Your task to perform on an android device: turn notification dots on Image 0: 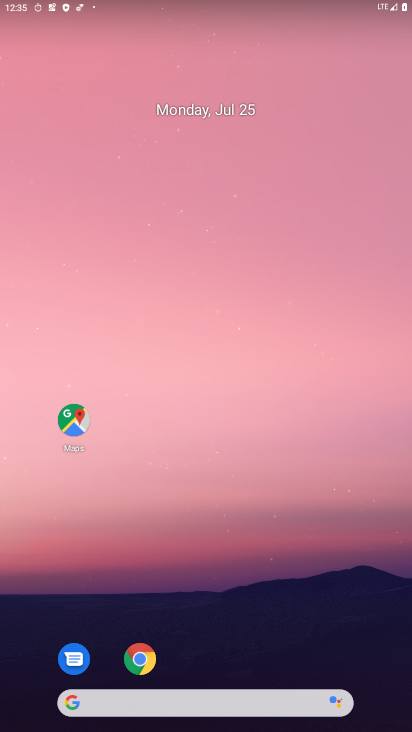
Step 0: click (248, 263)
Your task to perform on an android device: turn notification dots on Image 1: 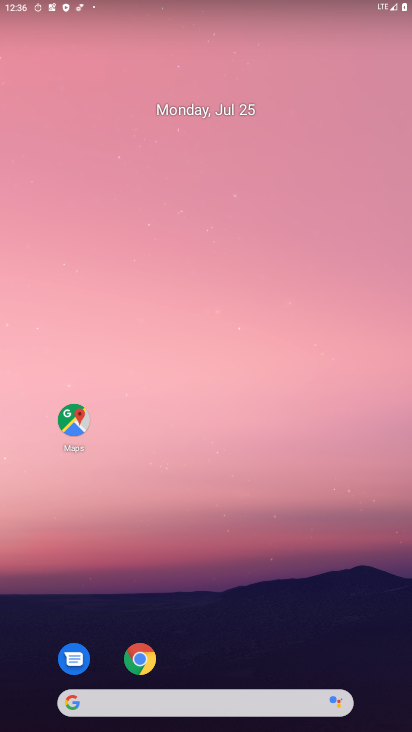
Step 1: drag from (21, 700) to (267, 64)
Your task to perform on an android device: turn notification dots on Image 2: 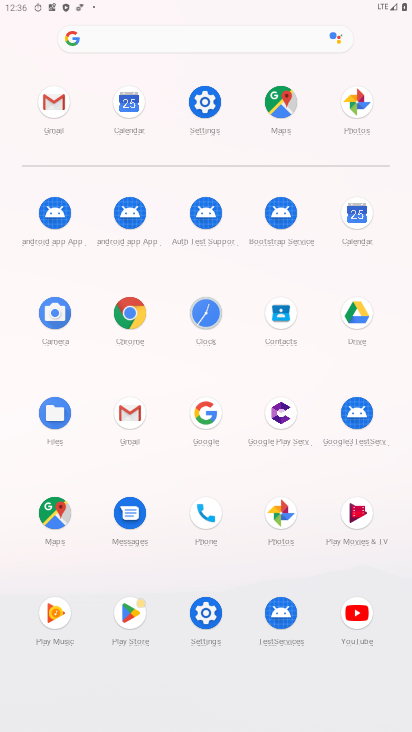
Step 2: click (205, 615)
Your task to perform on an android device: turn notification dots on Image 3: 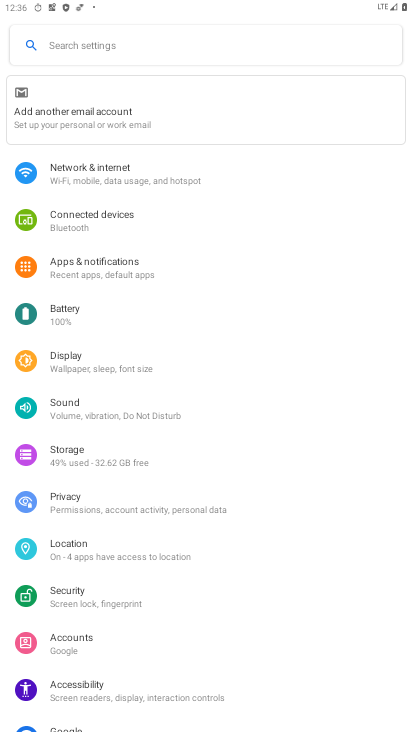
Step 3: click (87, 252)
Your task to perform on an android device: turn notification dots on Image 4: 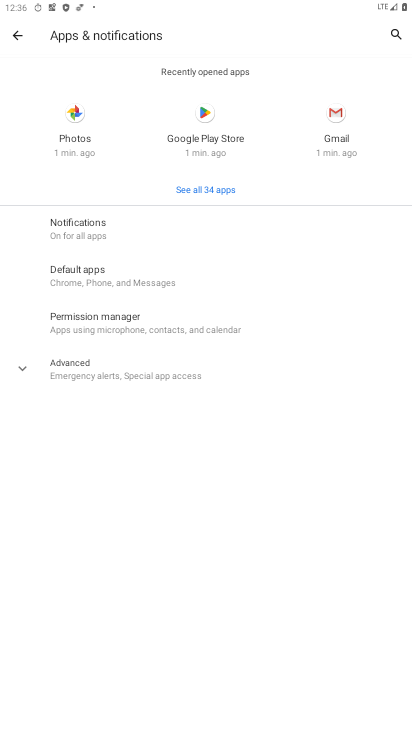
Step 4: click (70, 366)
Your task to perform on an android device: turn notification dots on Image 5: 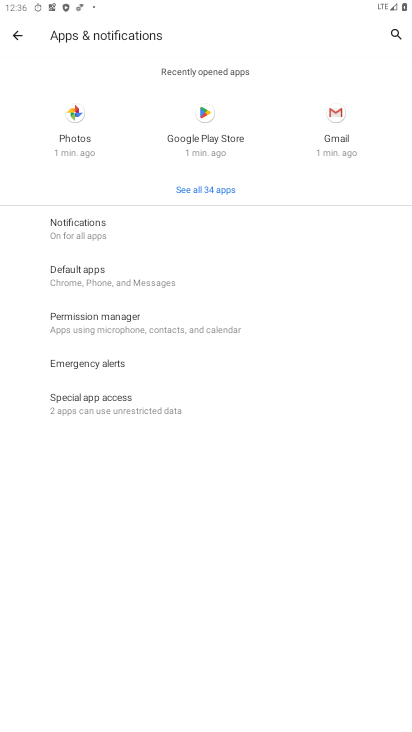
Step 5: click (99, 221)
Your task to perform on an android device: turn notification dots on Image 6: 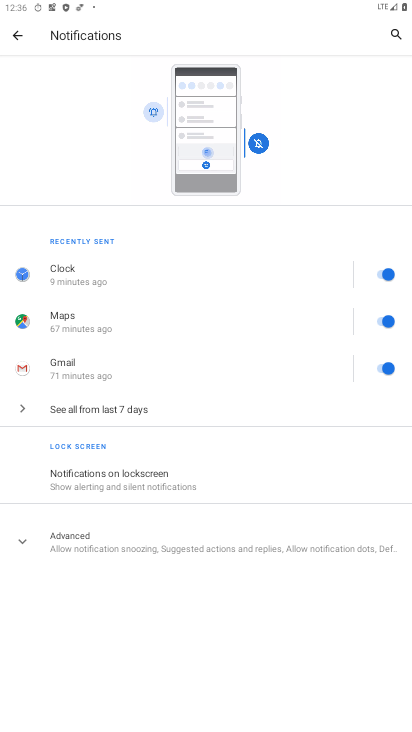
Step 6: click (88, 519)
Your task to perform on an android device: turn notification dots on Image 7: 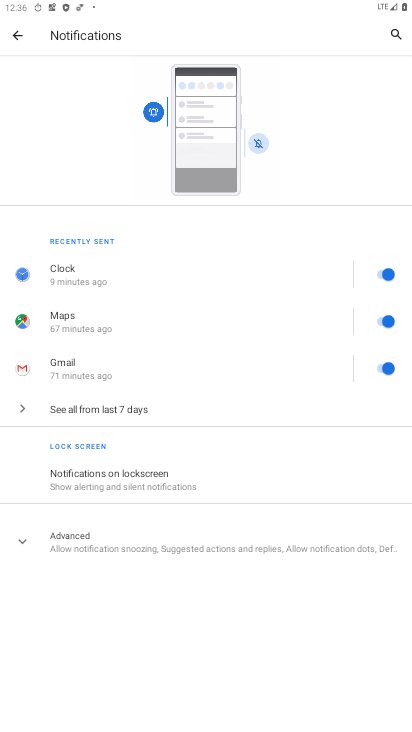
Step 7: click (57, 545)
Your task to perform on an android device: turn notification dots on Image 8: 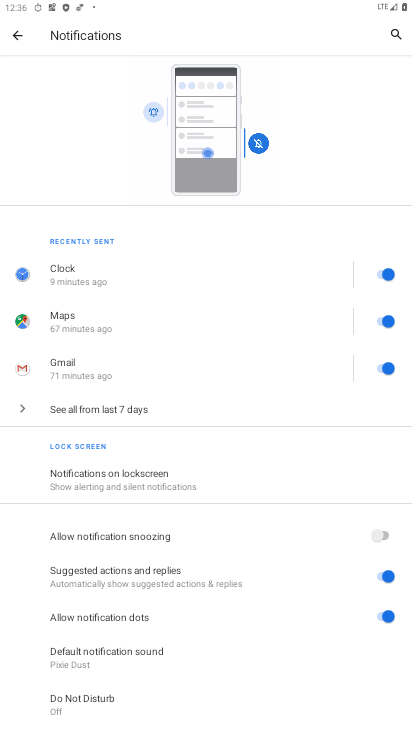
Step 8: task complete